Your task to perform on an android device: Open Reddit.com Image 0: 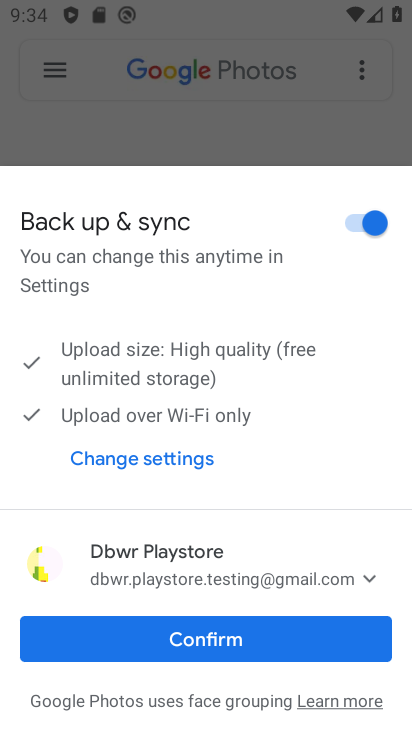
Step 0: press home button
Your task to perform on an android device: Open Reddit.com Image 1: 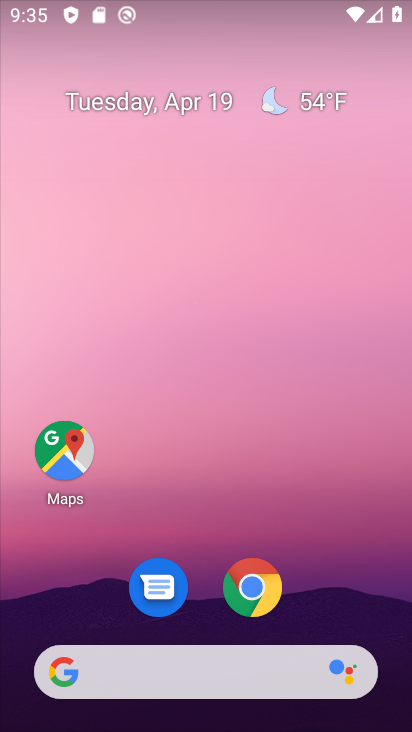
Step 1: click (264, 594)
Your task to perform on an android device: Open Reddit.com Image 2: 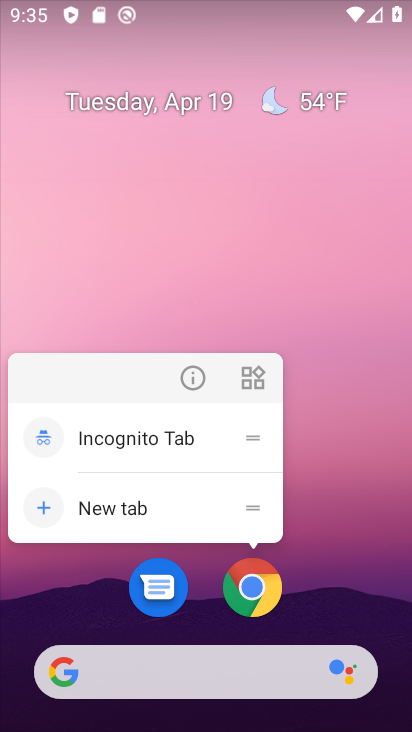
Step 2: click (260, 591)
Your task to perform on an android device: Open Reddit.com Image 3: 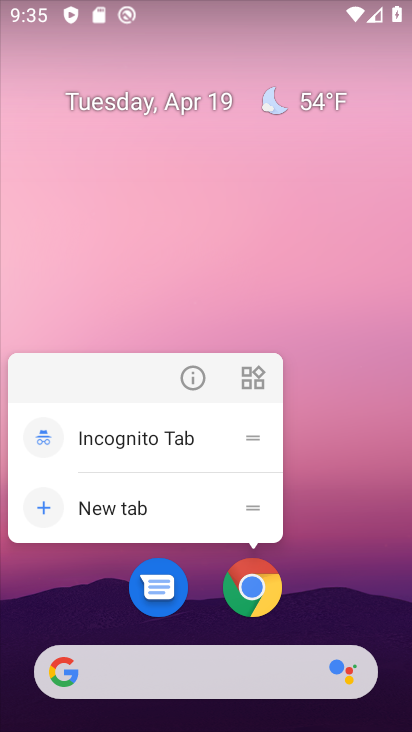
Step 3: click (238, 575)
Your task to perform on an android device: Open Reddit.com Image 4: 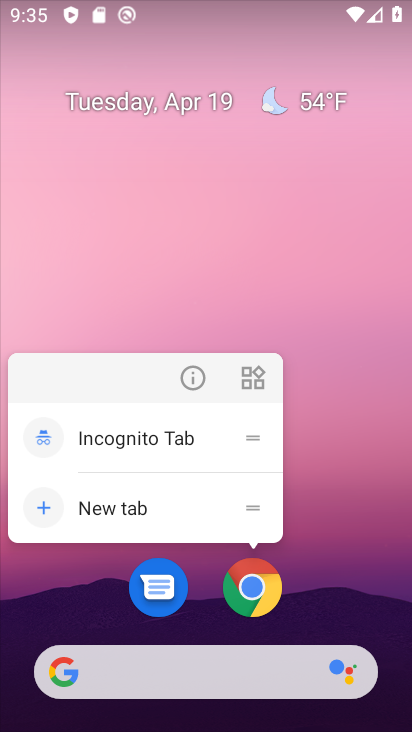
Step 4: click (241, 580)
Your task to perform on an android device: Open Reddit.com Image 5: 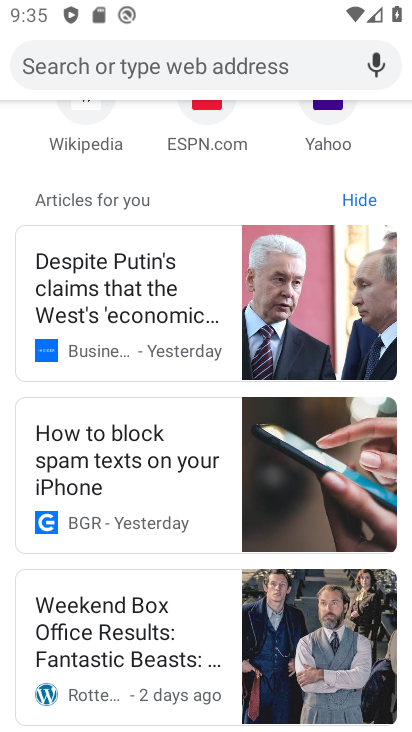
Step 5: click (175, 68)
Your task to perform on an android device: Open Reddit.com Image 6: 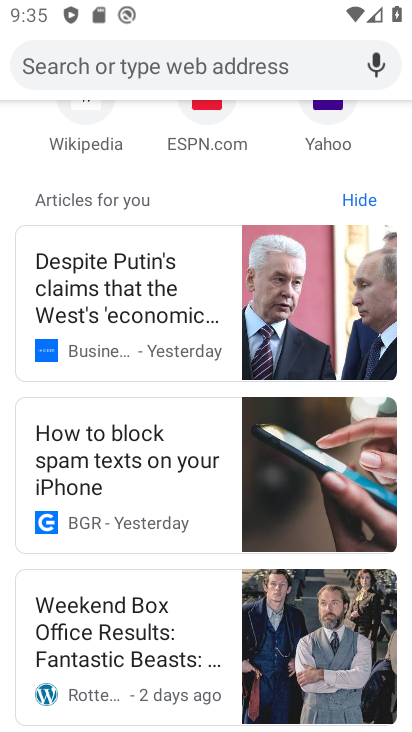
Step 6: click (259, 74)
Your task to perform on an android device: Open Reddit.com Image 7: 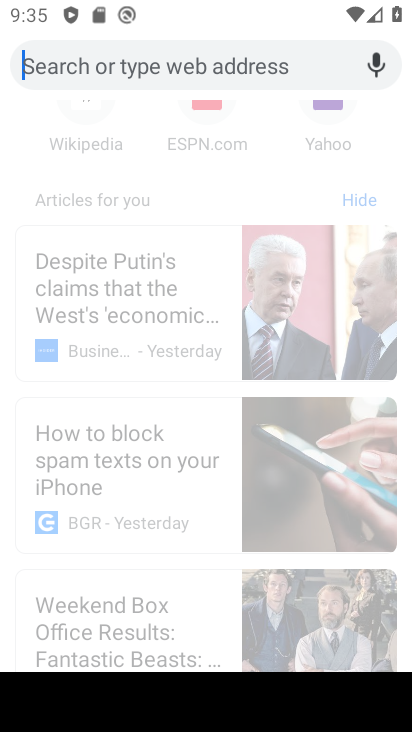
Step 7: type "reddit.com"
Your task to perform on an android device: Open Reddit.com Image 8: 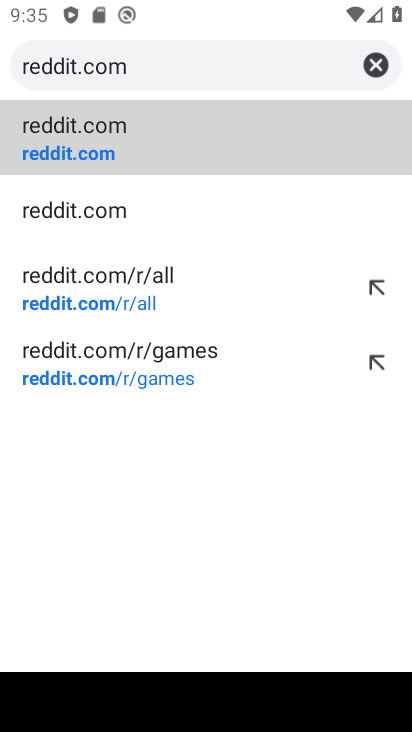
Step 8: click (112, 131)
Your task to perform on an android device: Open Reddit.com Image 9: 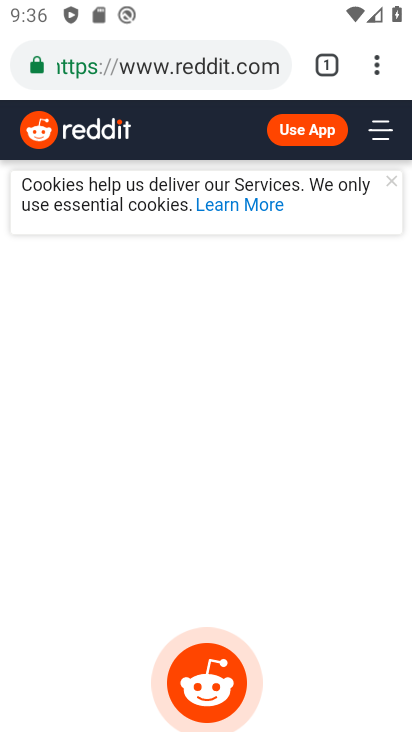
Step 9: task complete